Your task to perform on an android device: Search for pizza restaurants on Maps Image 0: 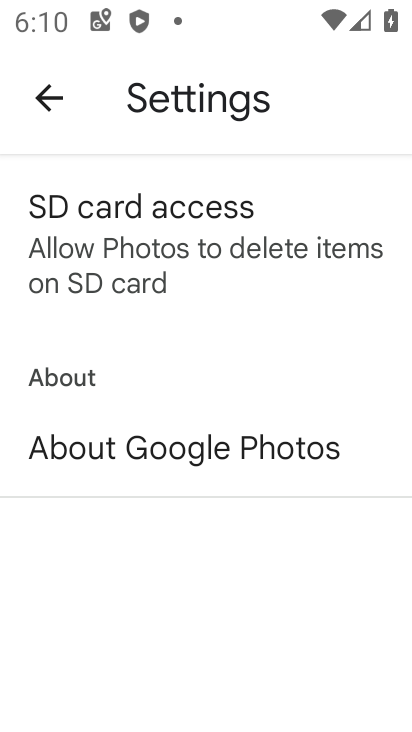
Step 0: press home button
Your task to perform on an android device: Search for pizza restaurants on Maps Image 1: 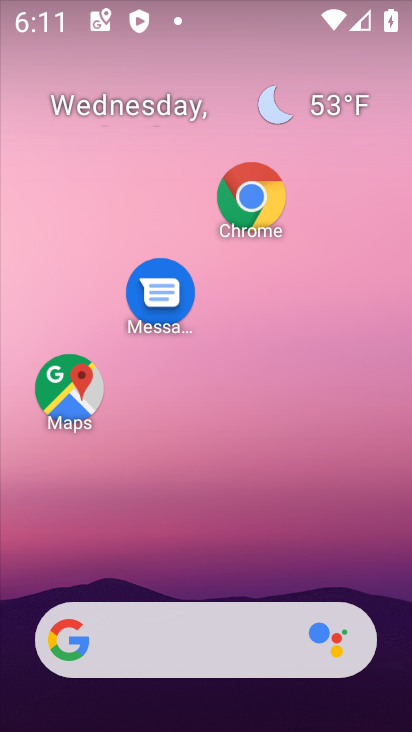
Step 1: click (86, 404)
Your task to perform on an android device: Search for pizza restaurants on Maps Image 2: 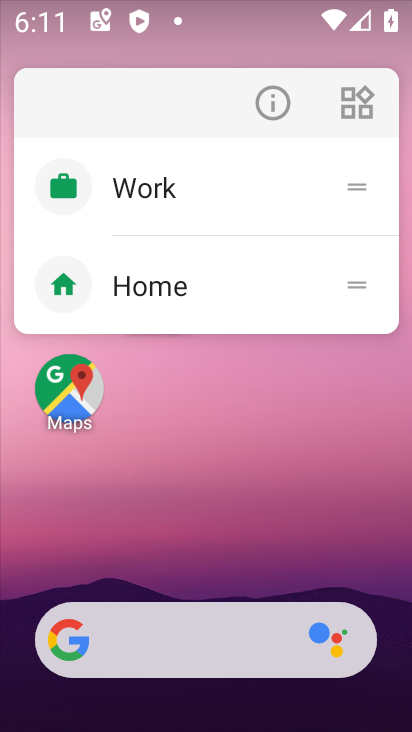
Step 2: click (68, 403)
Your task to perform on an android device: Search for pizza restaurants on Maps Image 3: 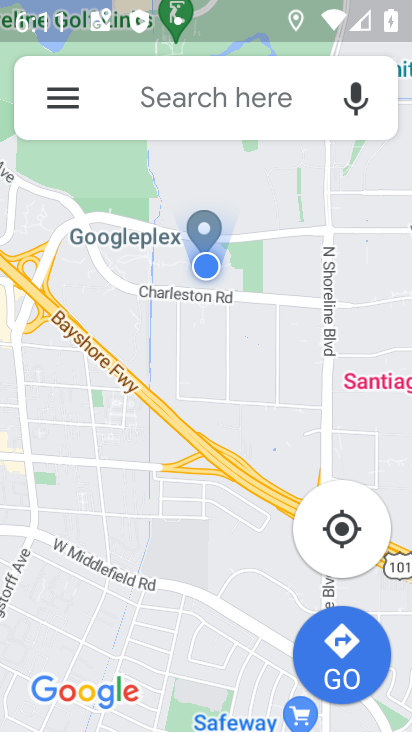
Step 3: click (202, 92)
Your task to perform on an android device: Search for pizza restaurants on Maps Image 4: 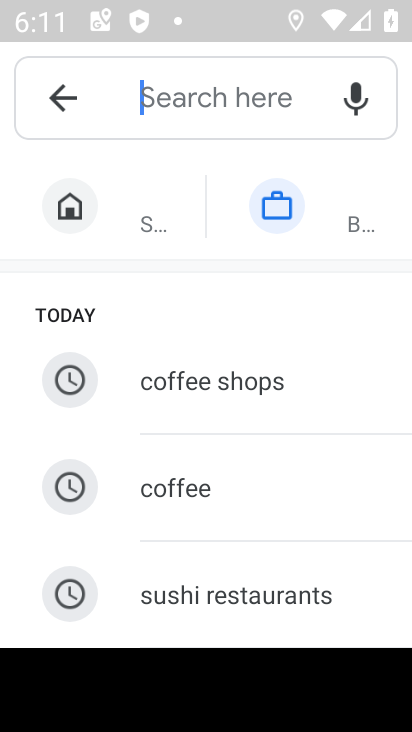
Step 4: drag from (285, 565) to (281, 291)
Your task to perform on an android device: Search for pizza restaurants on Maps Image 5: 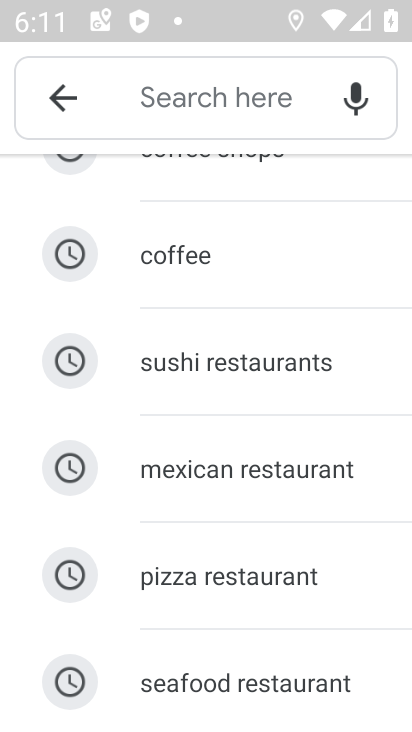
Step 5: click (238, 580)
Your task to perform on an android device: Search for pizza restaurants on Maps Image 6: 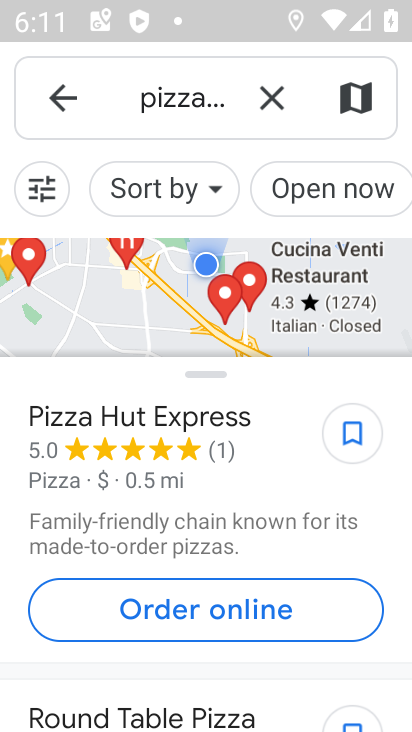
Step 6: task complete